Your task to perform on an android device: Open the calendar app, open the side menu, and click the "Day" option Image 0: 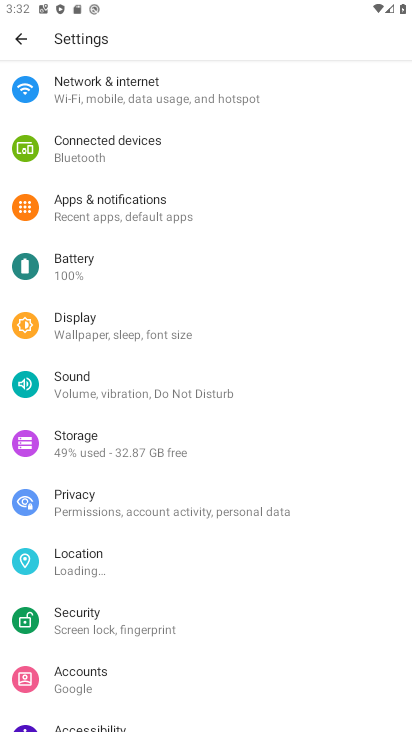
Step 0: press home button
Your task to perform on an android device: Open the calendar app, open the side menu, and click the "Day" option Image 1: 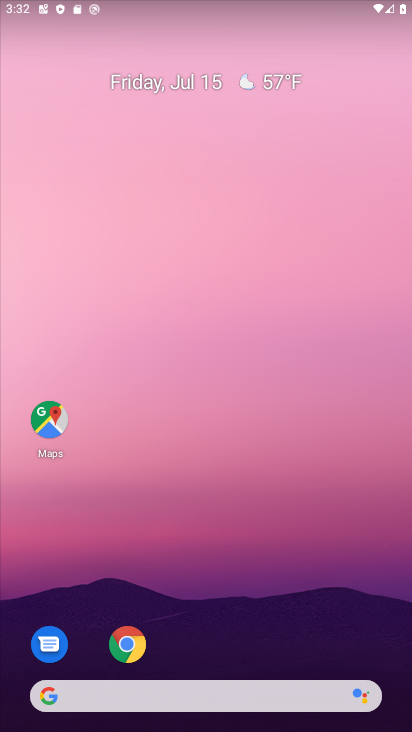
Step 1: drag from (303, 665) to (149, 69)
Your task to perform on an android device: Open the calendar app, open the side menu, and click the "Day" option Image 2: 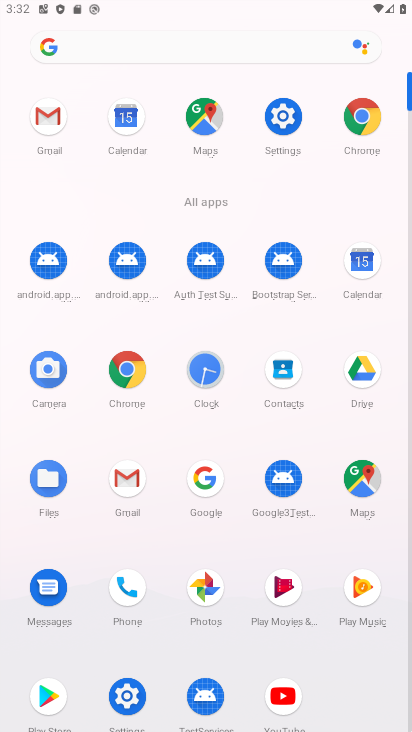
Step 2: click (139, 125)
Your task to perform on an android device: Open the calendar app, open the side menu, and click the "Day" option Image 3: 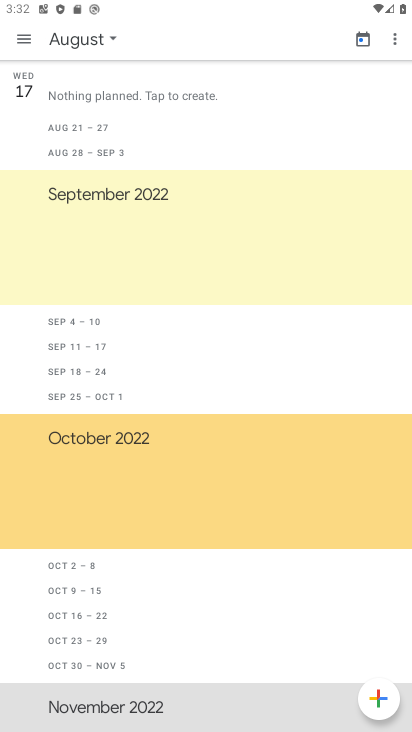
Step 3: click (26, 41)
Your task to perform on an android device: Open the calendar app, open the side menu, and click the "Day" option Image 4: 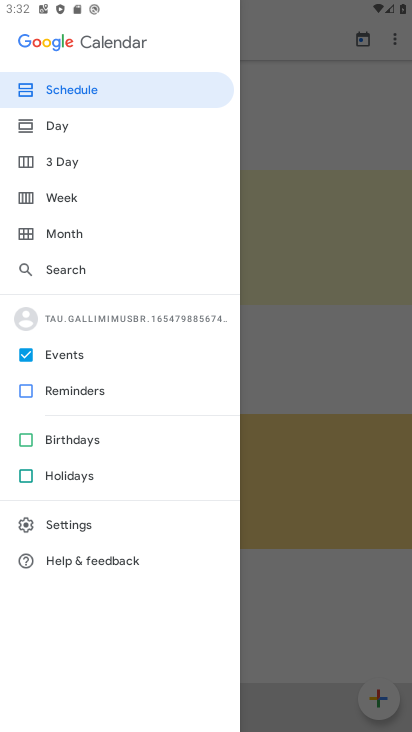
Step 4: click (80, 128)
Your task to perform on an android device: Open the calendar app, open the side menu, and click the "Day" option Image 5: 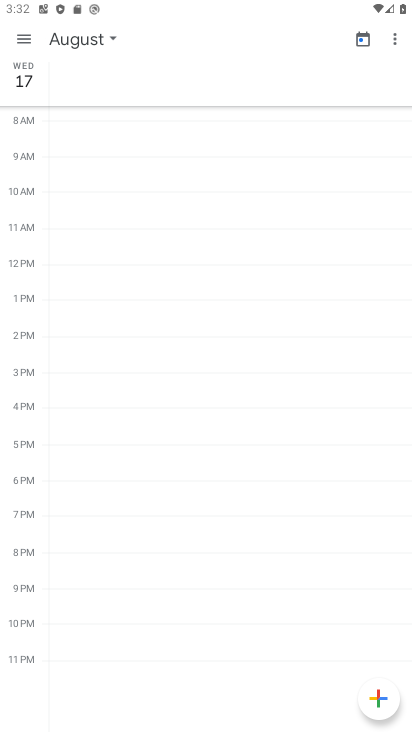
Step 5: task complete